Your task to perform on an android device: Find coffee shops on Maps Image 0: 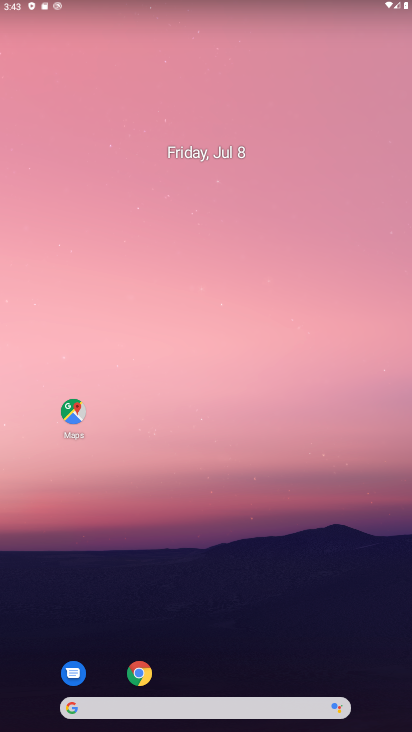
Step 0: drag from (289, 681) to (296, 92)
Your task to perform on an android device: Find coffee shops on Maps Image 1: 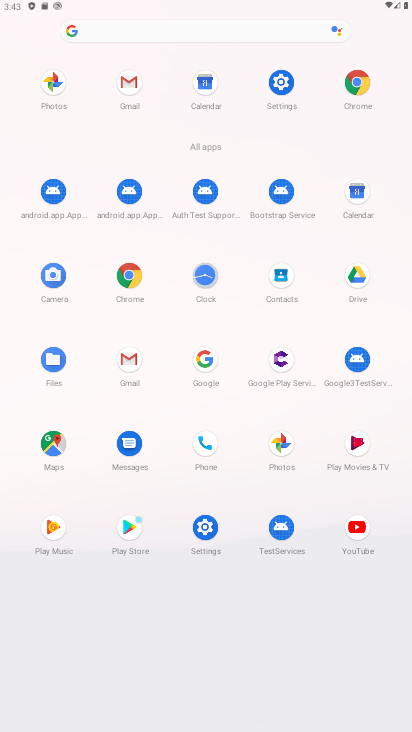
Step 1: click (53, 451)
Your task to perform on an android device: Find coffee shops on Maps Image 2: 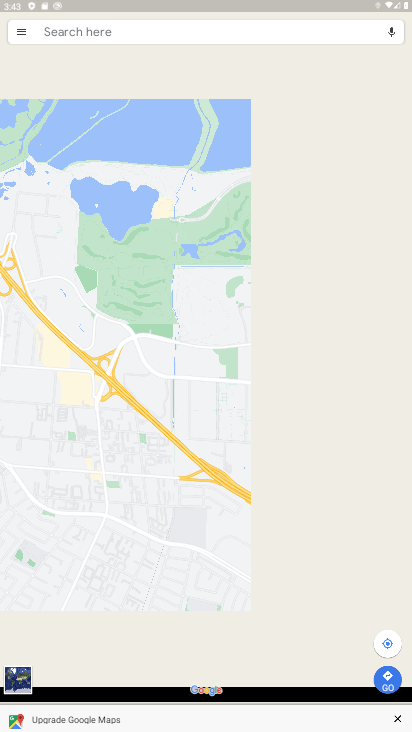
Step 2: click (98, 32)
Your task to perform on an android device: Find coffee shops on Maps Image 3: 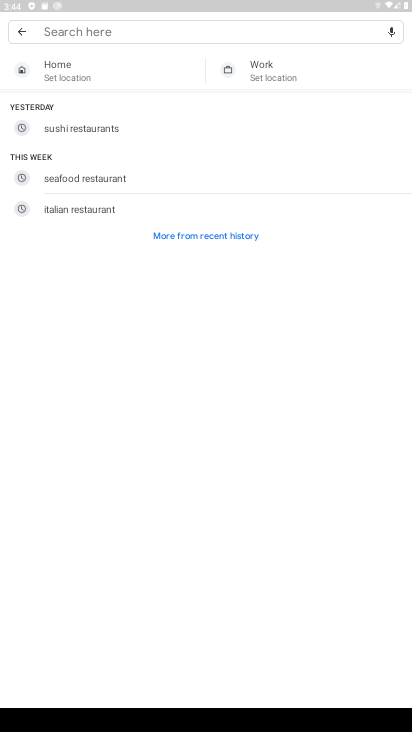
Step 3: type "coffee shops"
Your task to perform on an android device: Find coffee shops on Maps Image 4: 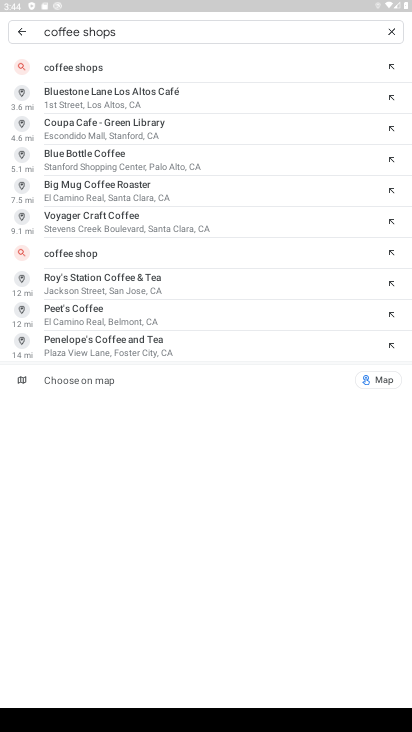
Step 4: click (66, 67)
Your task to perform on an android device: Find coffee shops on Maps Image 5: 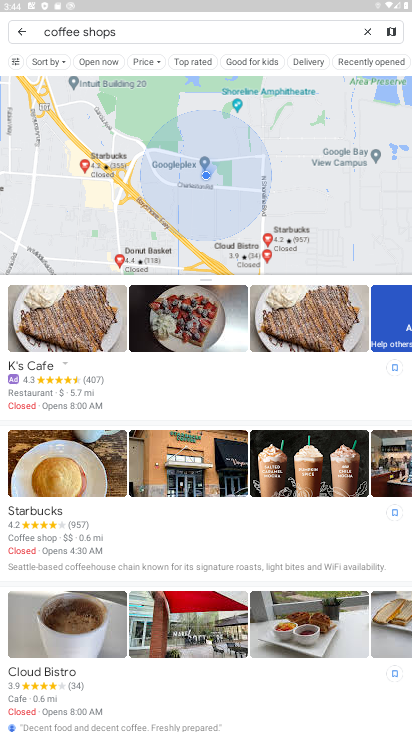
Step 5: task complete